Your task to perform on an android device: turn off wifi Image 0: 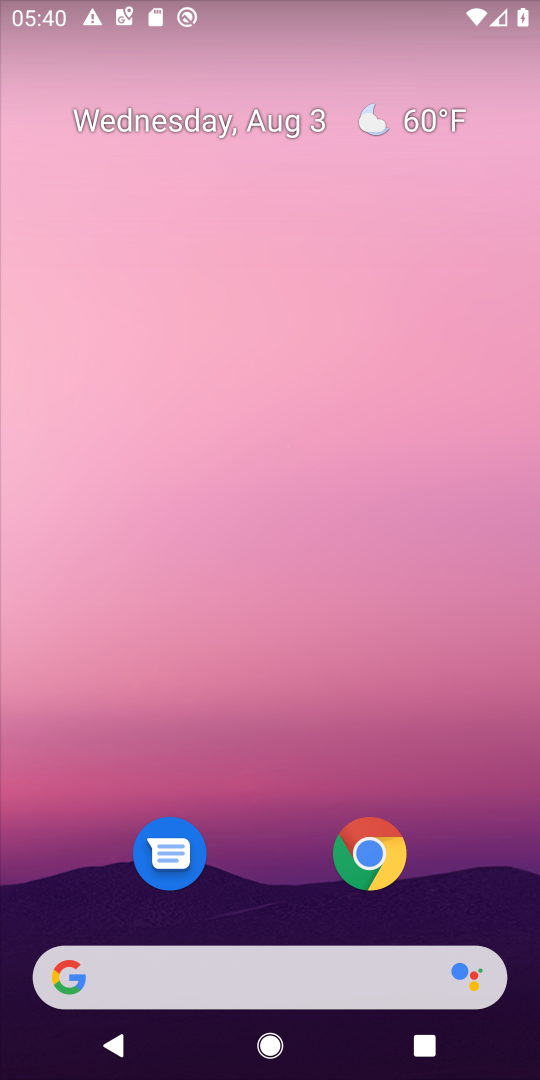
Step 0: drag from (275, 631) to (358, 13)
Your task to perform on an android device: turn off wifi Image 1: 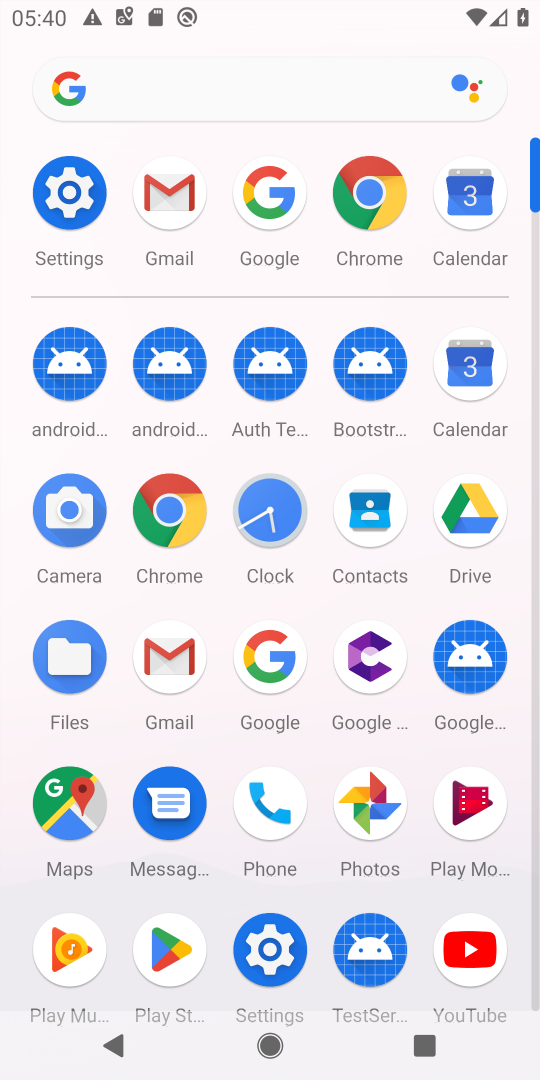
Step 1: click (70, 190)
Your task to perform on an android device: turn off wifi Image 2: 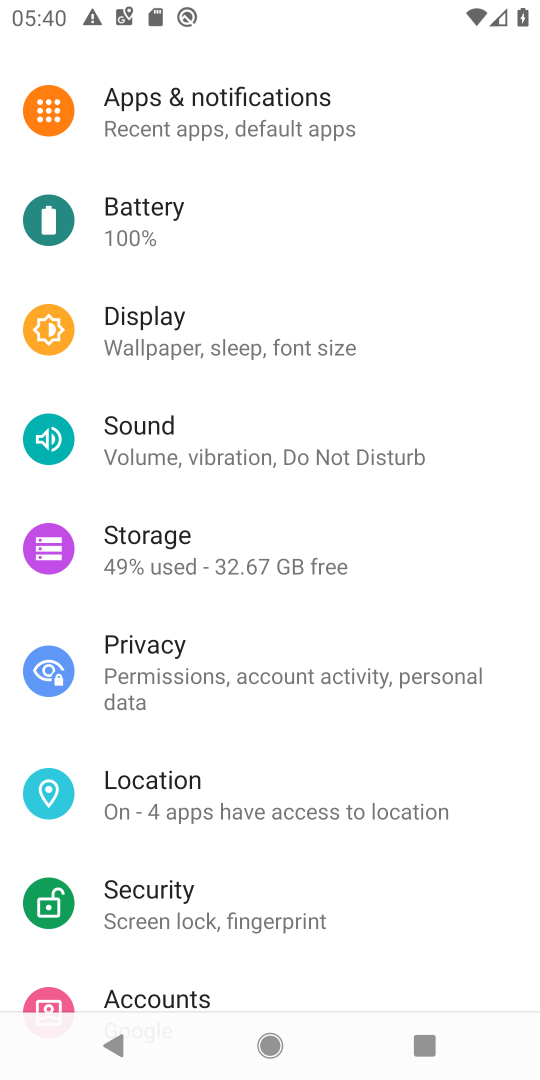
Step 2: drag from (273, 228) to (286, 943)
Your task to perform on an android device: turn off wifi Image 3: 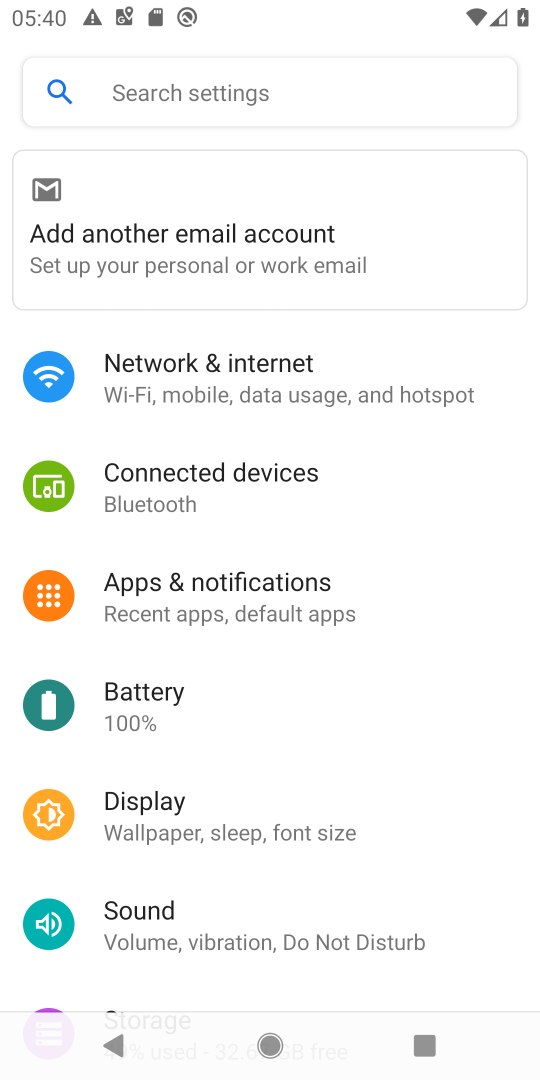
Step 3: click (210, 378)
Your task to perform on an android device: turn off wifi Image 4: 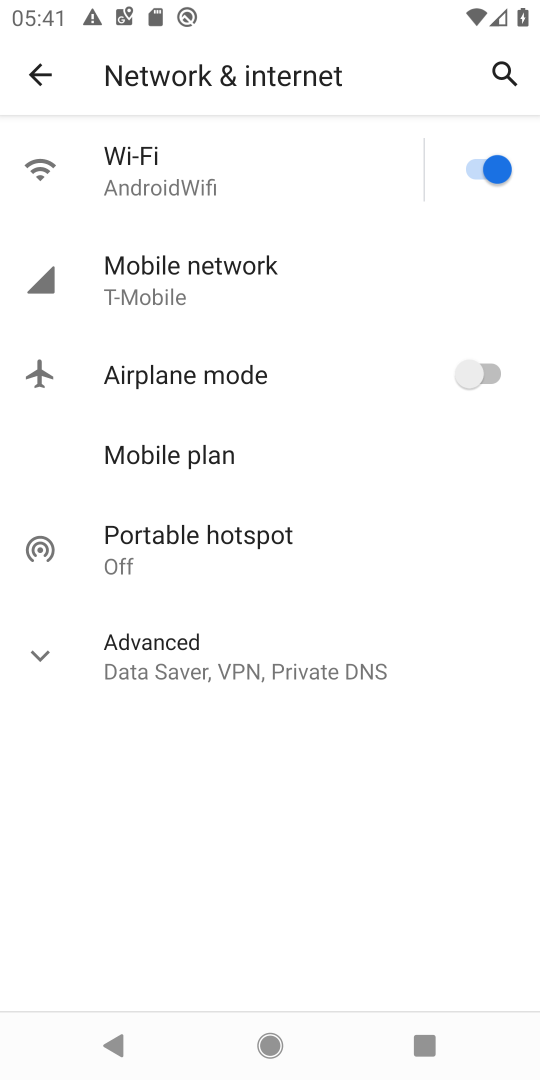
Step 4: click (497, 168)
Your task to perform on an android device: turn off wifi Image 5: 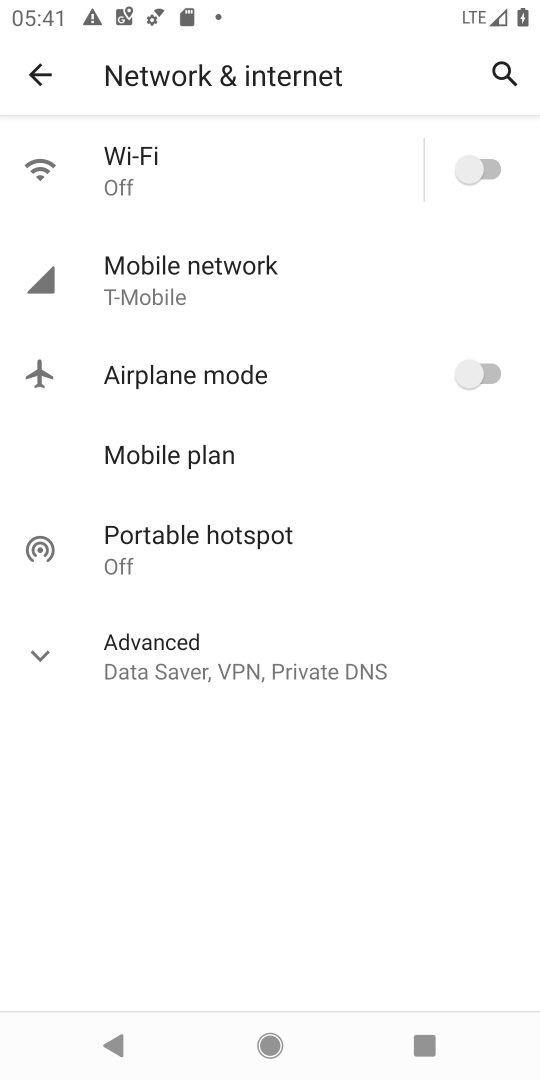
Step 5: task complete